Your task to perform on an android device: turn on wifi Image 0: 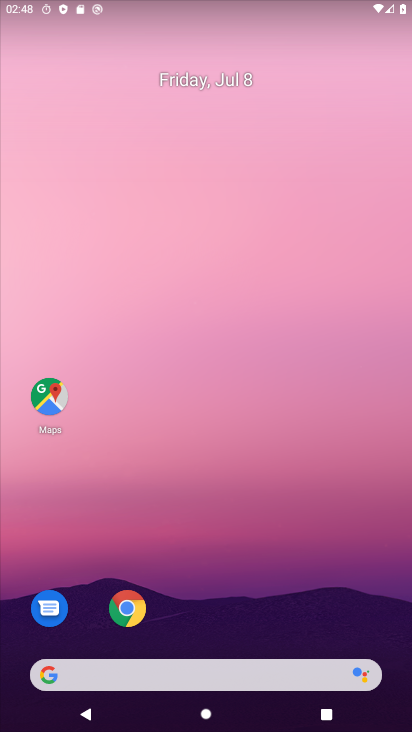
Step 0: drag from (228, 616) to (288, 241)
Your task to perform on an android device: turn on wifi Image 1: 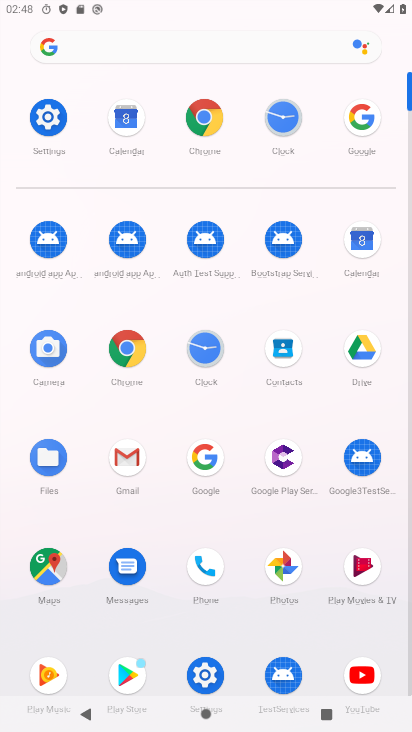
Step 1: click (41, 117)
Your task to perform on an android device: turn on wifi Image 2: 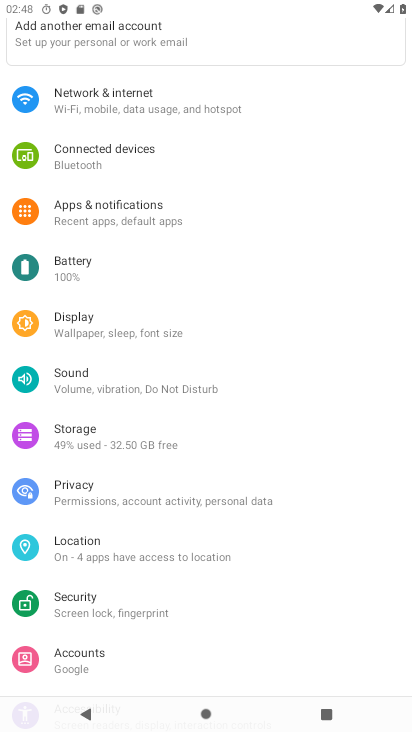
Step 2: click (145, 99)
Your task to perform on an android device: turn on wifi Image 3: 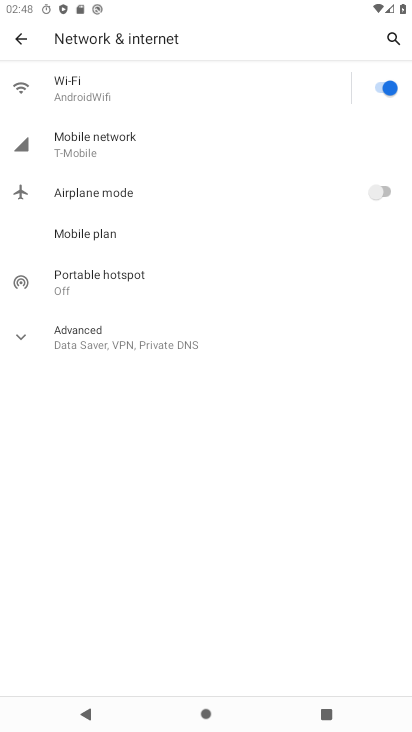
Step 3: task complete